Your task to perform on an android device: Open notification settings Image 0: 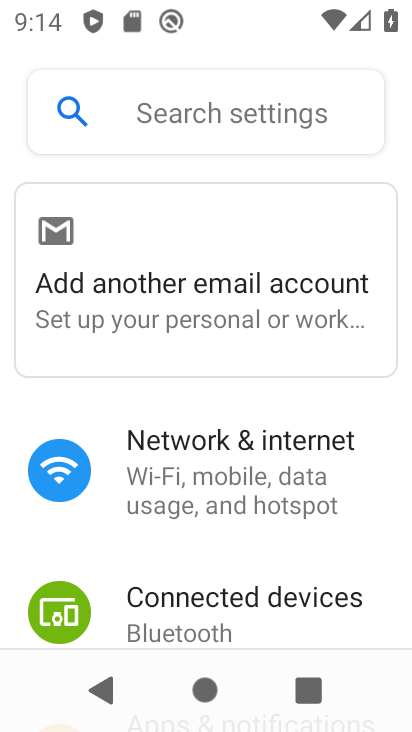
Step 0: drag from (282, 594) to (341, 220)
Your task to perform on an android device: Open notification settings Image 1: 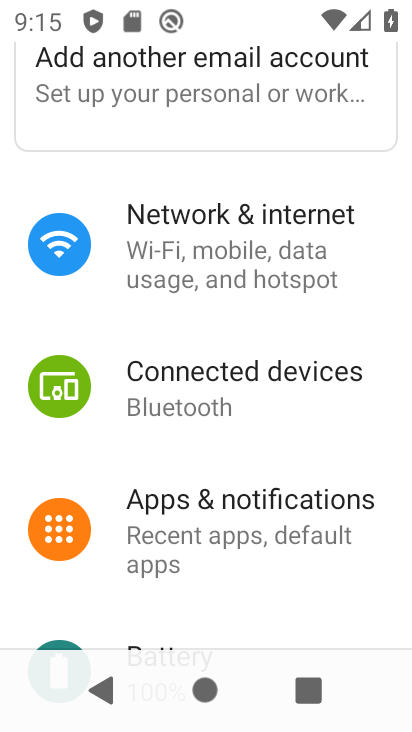
Step 1: click (301, 518)
Your task to perform on an android device: Open notification settings Image 2: 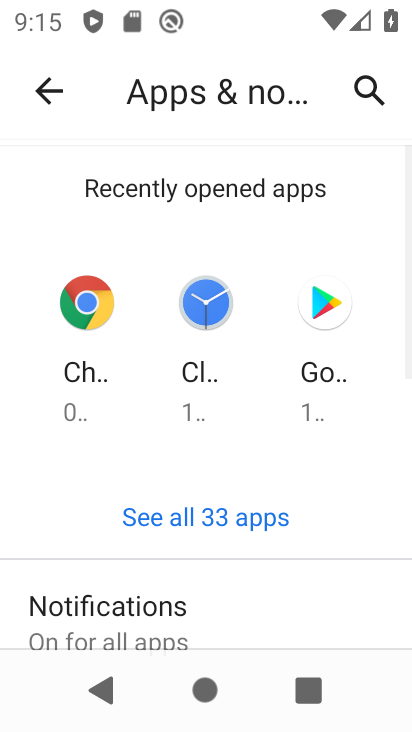
Step 2: drag from (312, 574) to (324, 246)
Your task to perform on an android device: Open notification settings Image 3: 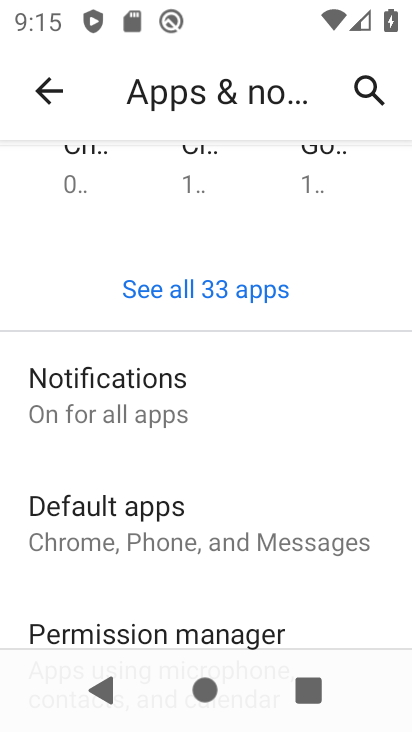
Step 3: click (144, 412)
Your task to perform on an android device: Open notification settings Image 4: 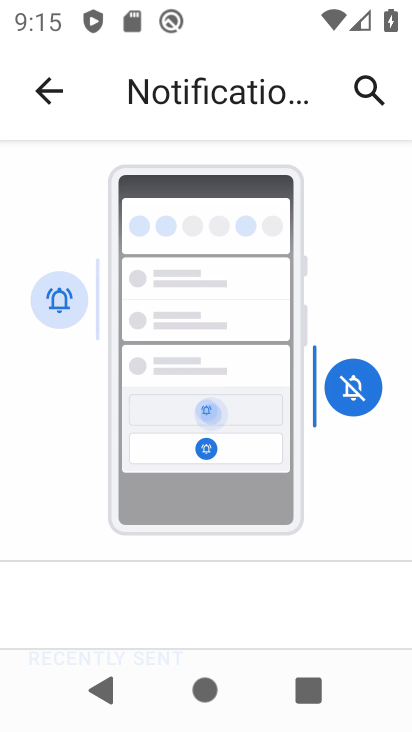
Step 4: task complete